Your task to perform on an android device: Open battery settings Image 0: 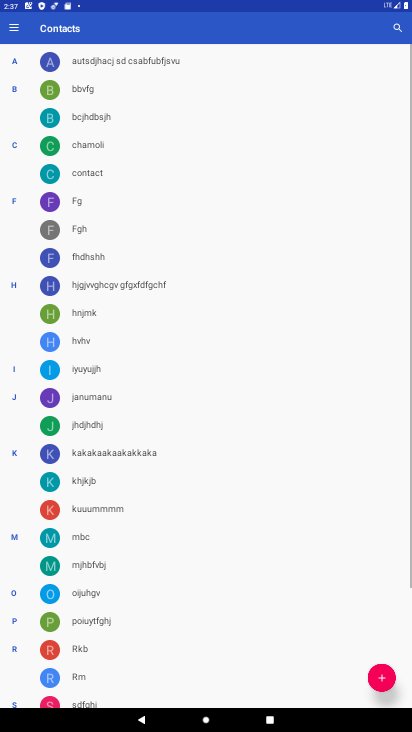
Step 0: drag from (182, 535) to (224, 125)
Your task to perform on an android device: Open battery settings Image 1: 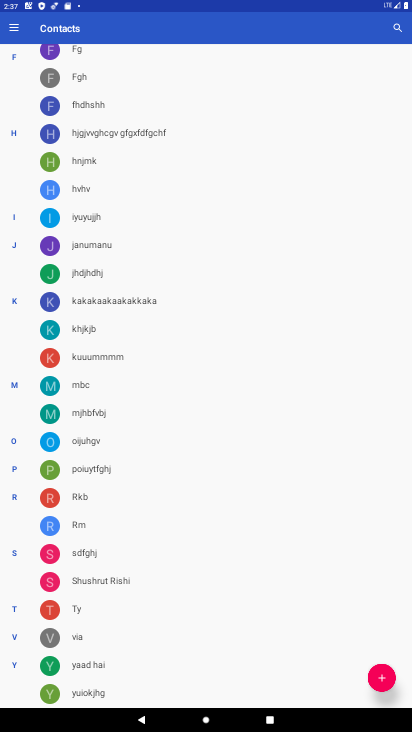
Step 1: press home button
Your task to perform on an android device: Open battery settings Image 2: 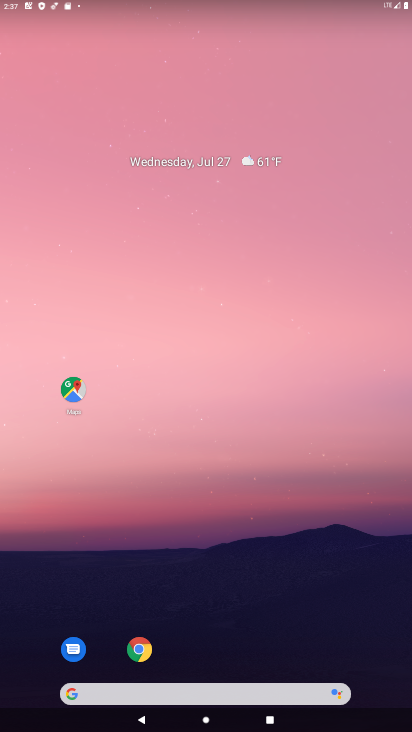
Step 2: drag from (196, 491) to (257, 62)
Your task to perform on an android device: Open battery settings Image 3: 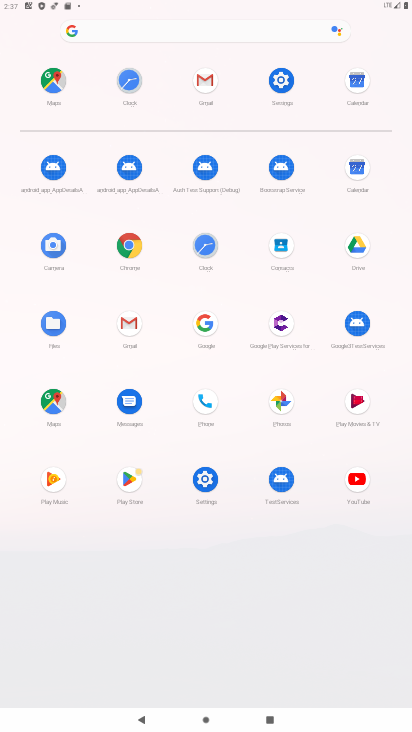
Step 3: click (194, 487)
Your task to perform on an android device: Open battery settings Image 4: 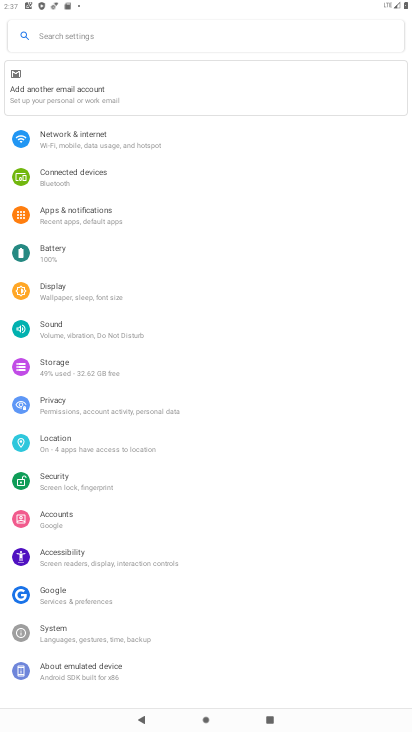
Step 4: click (64, 256)
Your task to perform on an android device: Open battery settings Image 5: 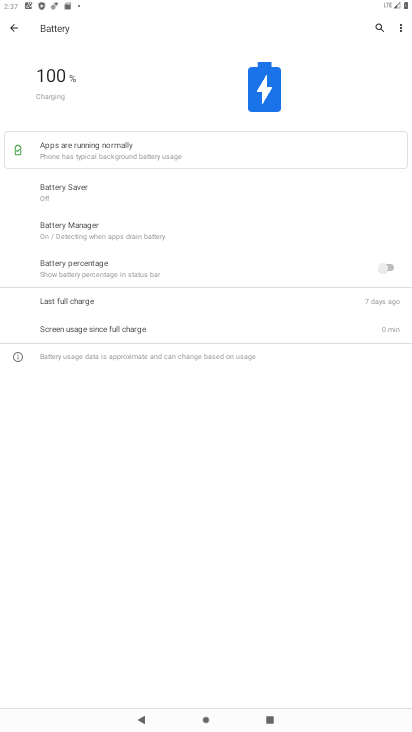
Step 5: task complete